Your task to perform on an android device: Open Reddit.com Image 0: 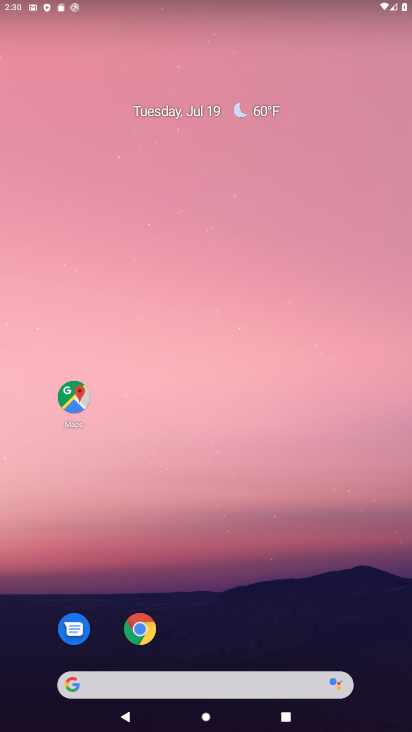
Step 0: click (216, 687)
Your task to perform on an android device: Open Reddit.com Image 1: 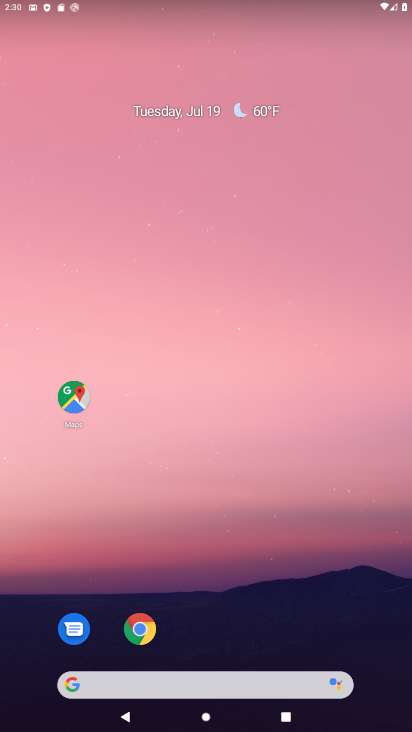
Step 1: click (216, 687)
Your task to perform on an android device: Open Reddit.com Image 2: 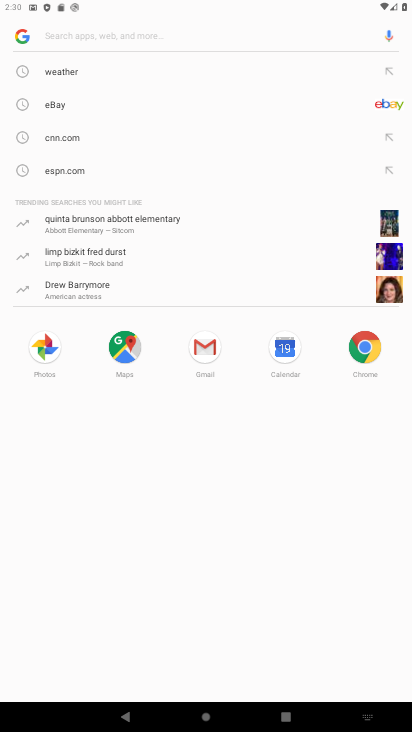
Step 2: type "Reddit.com"
Your task to perform on an android device: Open Reddit.com Image 3: 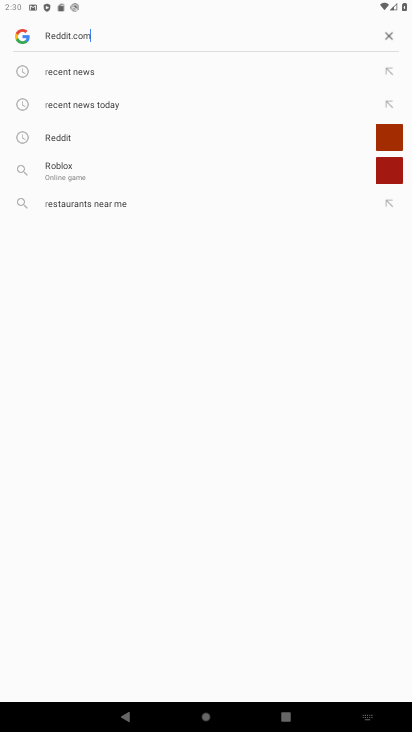
Step 3: press enter
Your task to perform on an android device: Open Reddit.com Image 4: 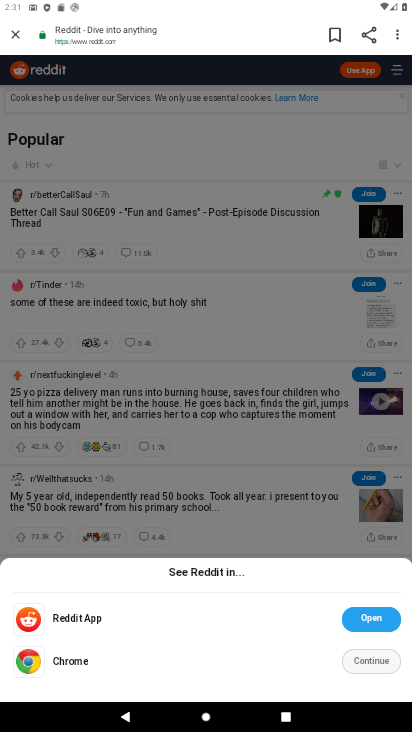
Step 4: task complete